Your task to perform on an android device: Open Android settings Image 0: 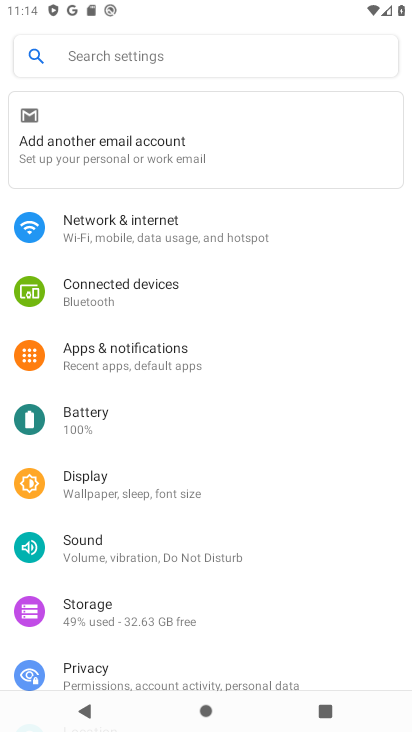
Step 0: task complete